Your task to perform on an android device: Check the weather Image 0: 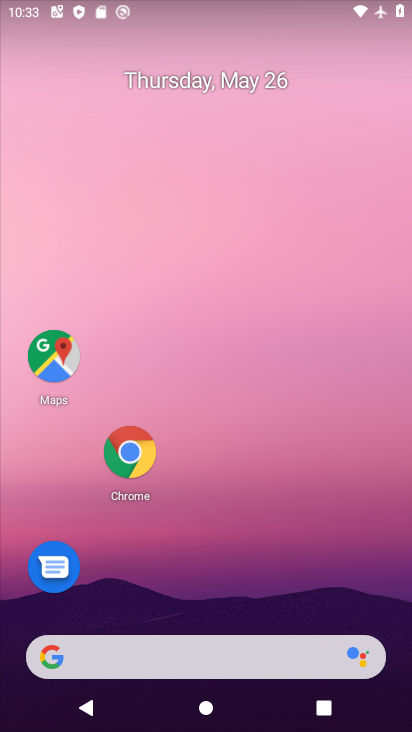
Step 0: click (52, 661)
Your task to perform on an android device: Check the weather Image 1: 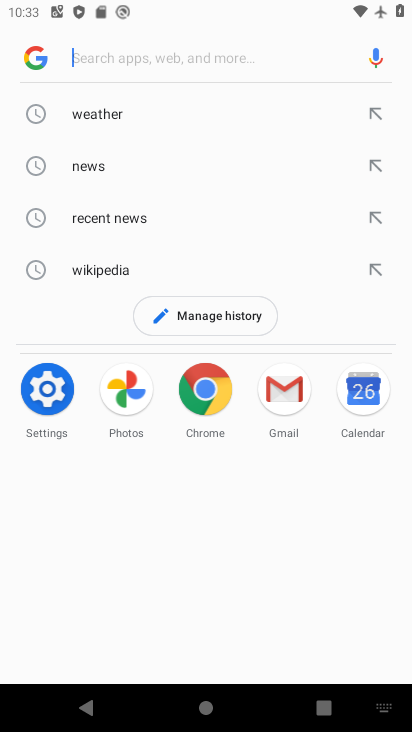
Step 1: click (114, 112)
Your task to perform on an android device: Check the weather Image 2: 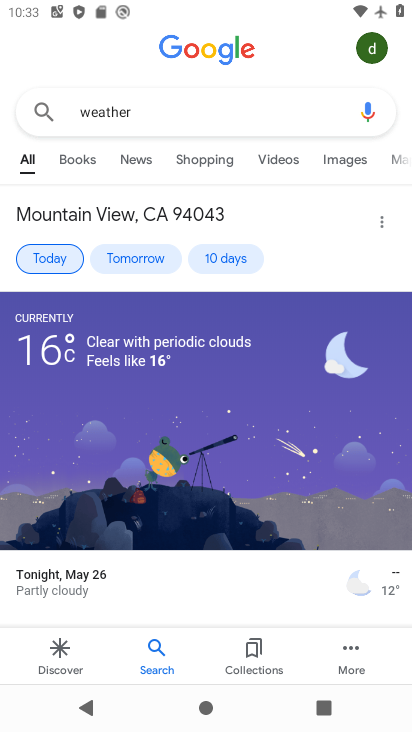
Step 2: task complete